Your task to perform on an android device: Play the last video I watched on Youtube Image 0: 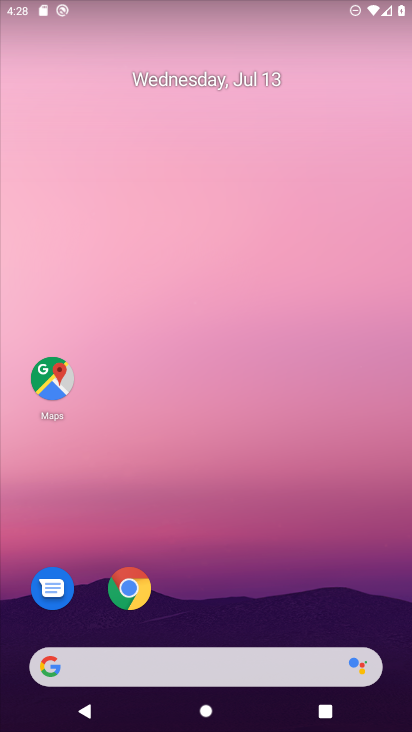
Step 0: drag from (224, 583) to (198, 168)
Your task to perform on an android device: Play the last video I watched on Youtube Image 1: 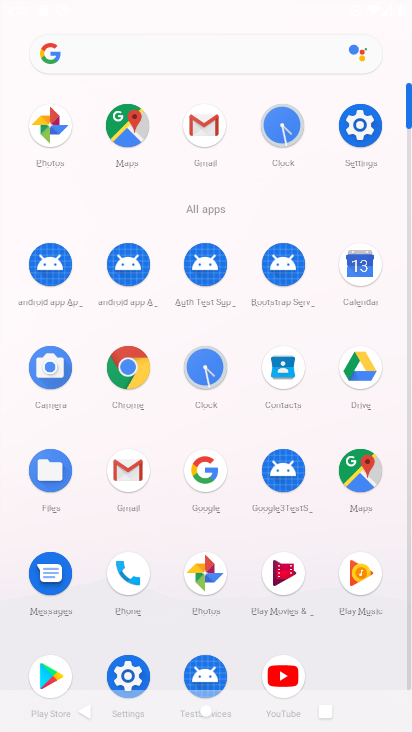
Step 1: click (263, 675)
Your task to perform on an android device: Play the last video I watched on Youtube Image 2: 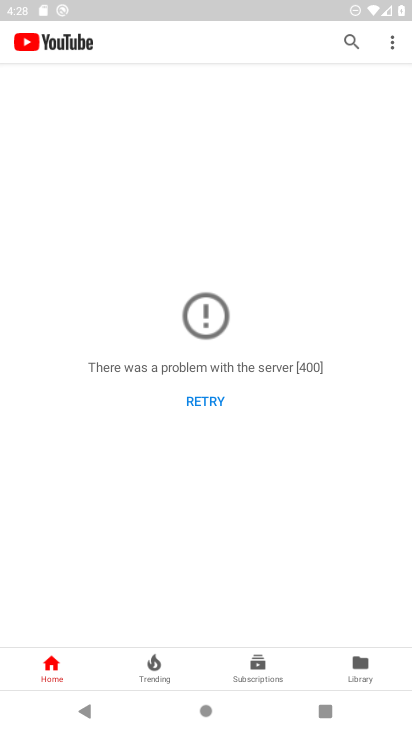
Step 2: task complete